Your task to perform on an android device: change the clock display to show seconds Image 0: 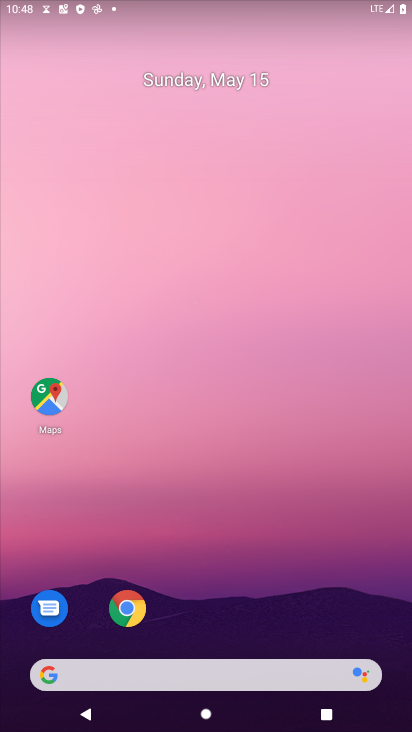
Step 0: drag from (292, 587) to (208, 4)
Your task to perform on an android device: change the clock display to show seconds Image 1: 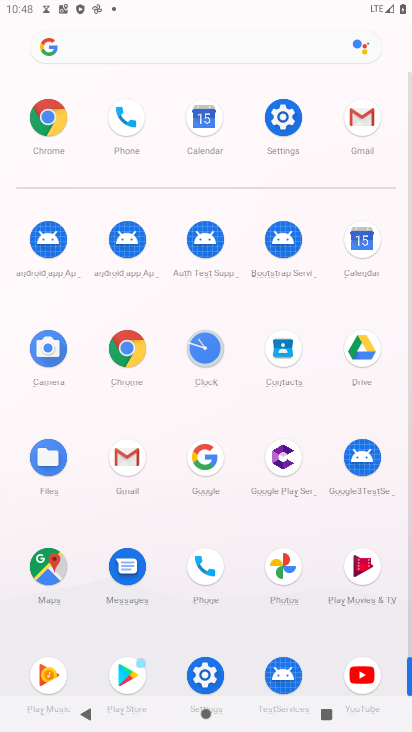
Step 1: click (200, 355)
Your task to perform on an android device: change the clock display to show seconds Image 2: 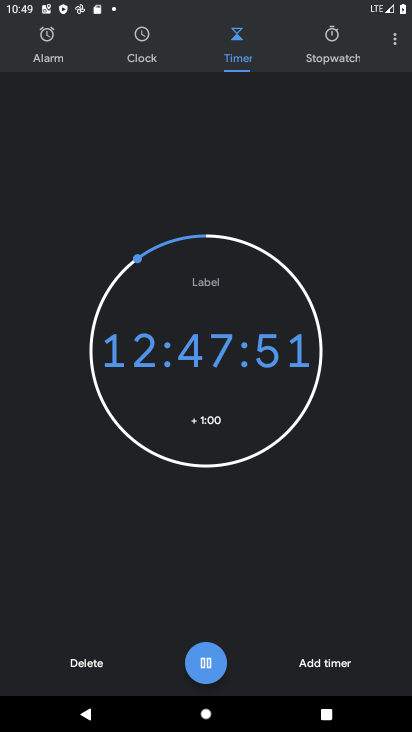
Step 2: click (385, 56)
Your task to perform on an android device: change the clock display to show seconds Image 3: 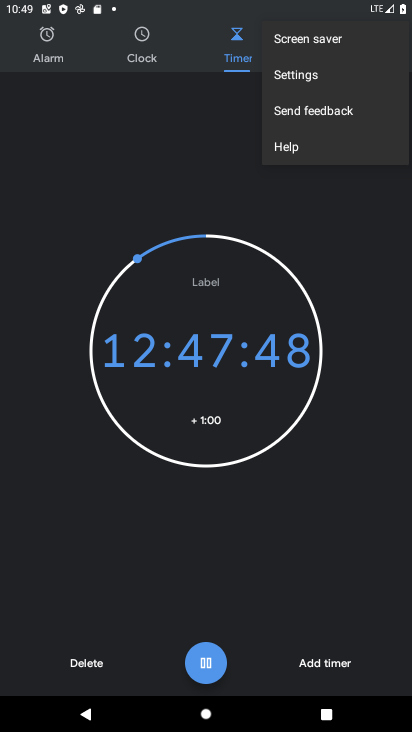
Step 3: click (314, 83)
Your task to perform on an android device: change the clock display to show seconds Image 4: 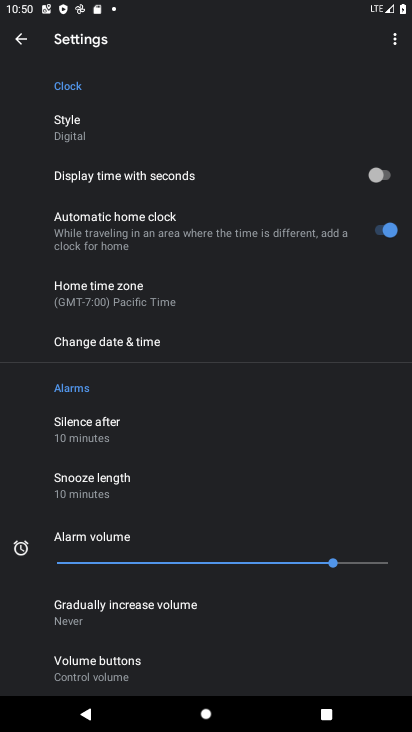
Step 4: click (367, 171)
Your task to perform on an android device: change the clock display to show seconds Image 5: 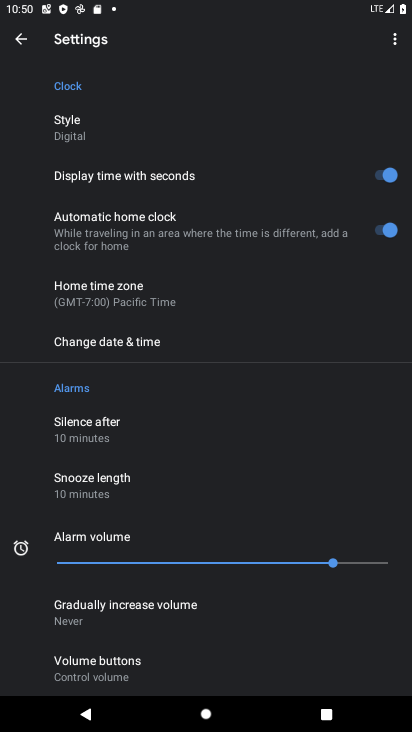
Step 5: task complete